Your task to perform on an android device: delete the emails in spam in the gmail app Image 0: 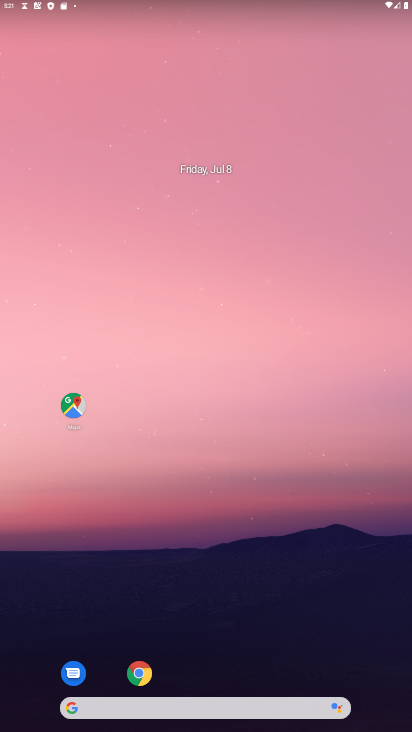
Step 0: drag from (208, 633) to (157, 82)
Your task to perform on an android device: delete the emails in spam in the gmail app Image 1: 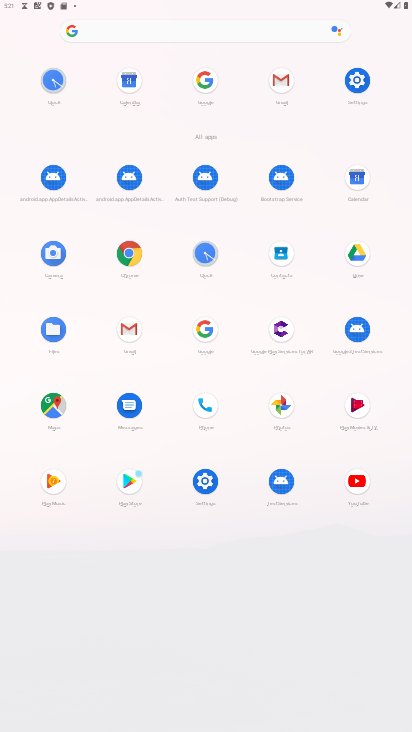
Step 1: click (286, 86)
Your task to perform on an android device: delete the emails in spam in the gmail app Image 2: 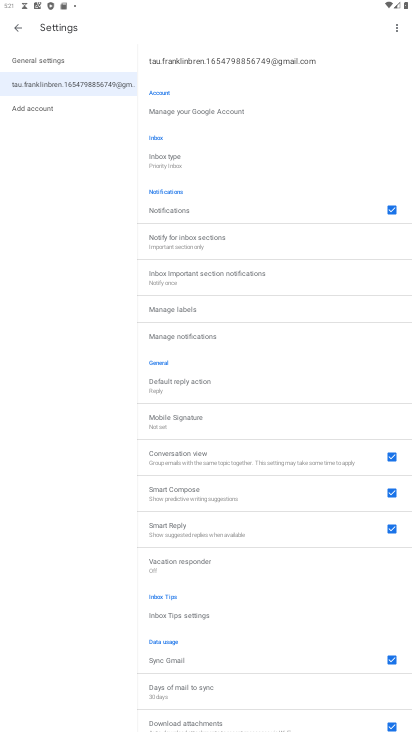
Step 2: click (15, 31)
Your task to perform on an android device: delete the emails in spam in the gmail app Image 3: 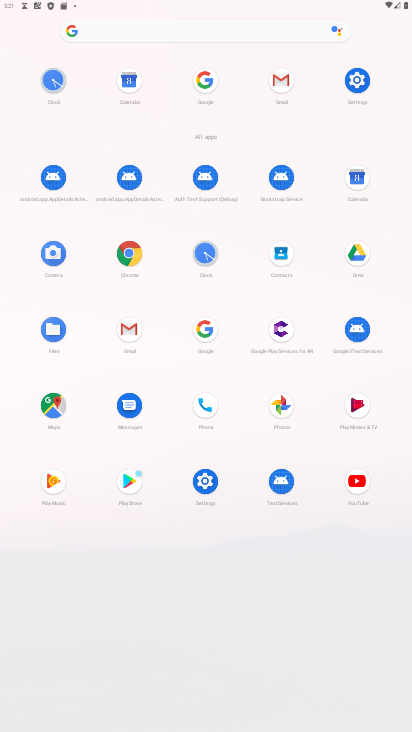
Step 3: click (275, 81)
Your task to perform on an android device: delete the emails in spam in the gmail app Image 4: 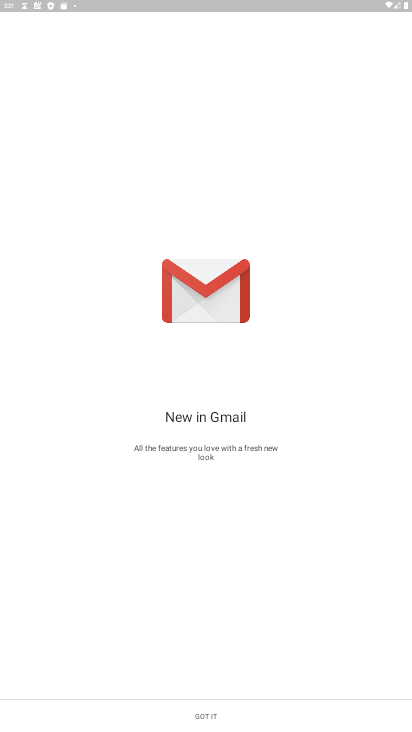
Step 4: click (214, 710)
Your task to perform on an android device: delete the emails in spam in the gmail app Image 5: 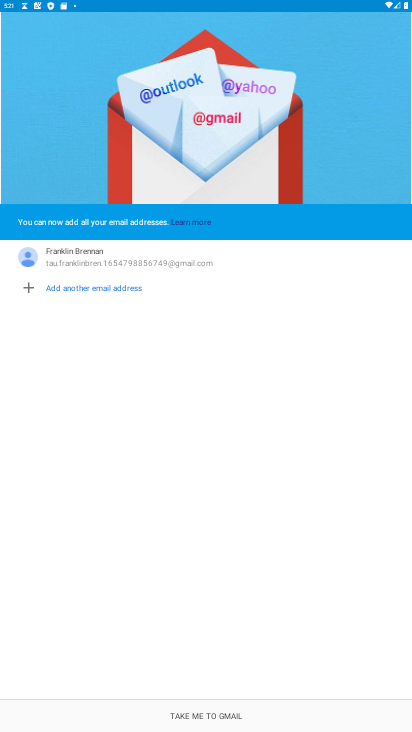
Step 5: click (214, 710)
Your task to perform on an android device: delete the emails in spam in the gmail app Image 6: 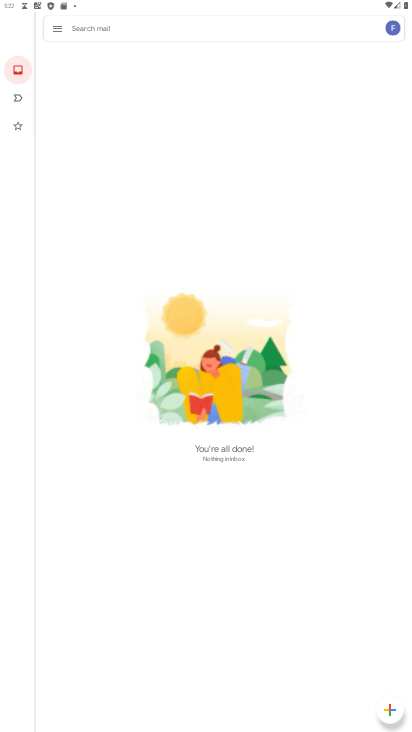
Step 6: task complete